Your task to perform on an android device: Go to Reddit.com Image 0: 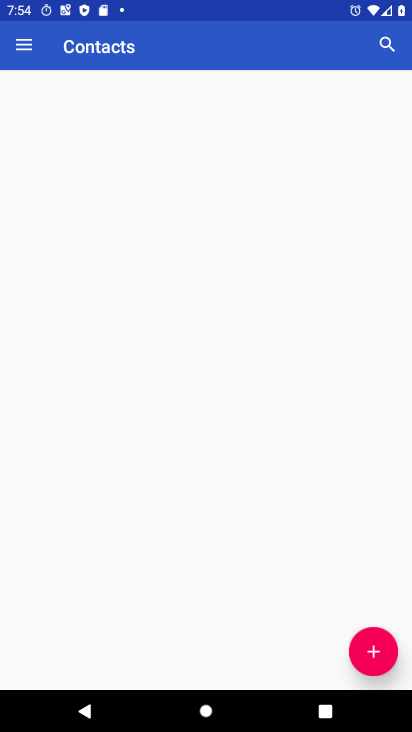
Step 0: drag from (229, 640) to (281, 214)
Your task to perform on an android device: Go to Reddit.com Image 1: 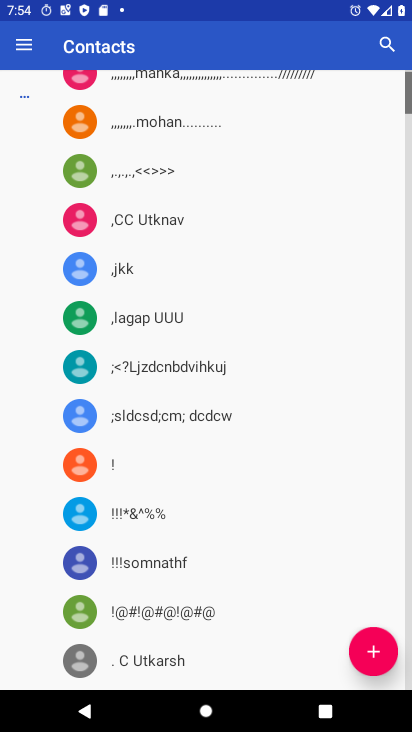
Step 1: press home button
Your task to perform on an android device: Go to Reddit.com Image 2: 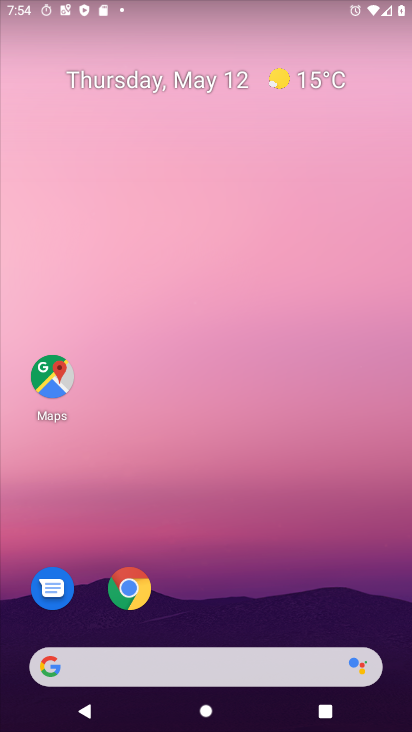
Step 2: click (135, 585)
Your task to perform on an android device: Go to Reddit.com Image 3: 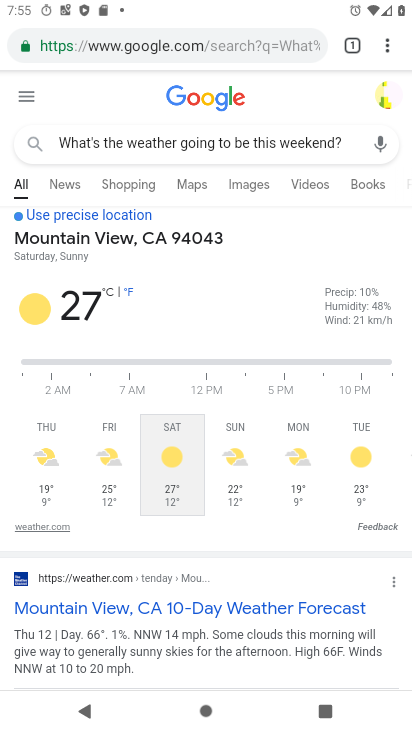
Step 3: click (196, 41)
Your task to perform on an android device: Go to Reddit.com Image 4: 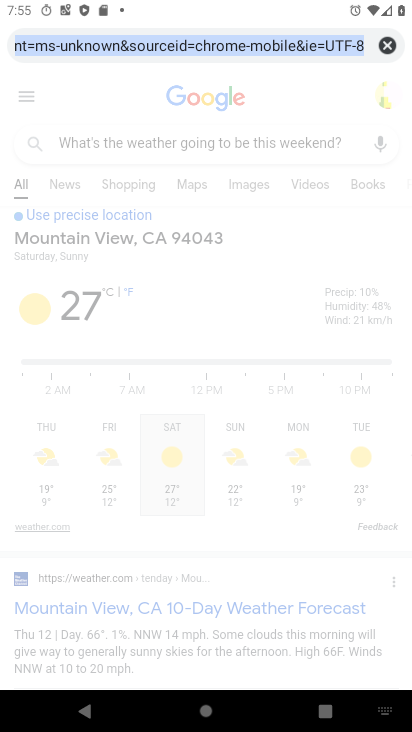
Step 4: type "Reddit.com"
Your task to perform on an android device: Go to Reddit.com Image 5: 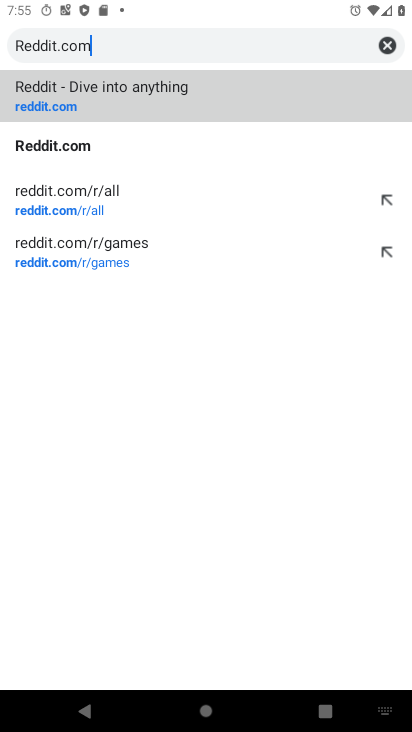
Step 5: click (99, 141)
Your task to perform on an android device: Go to Reddit.com Image 6: 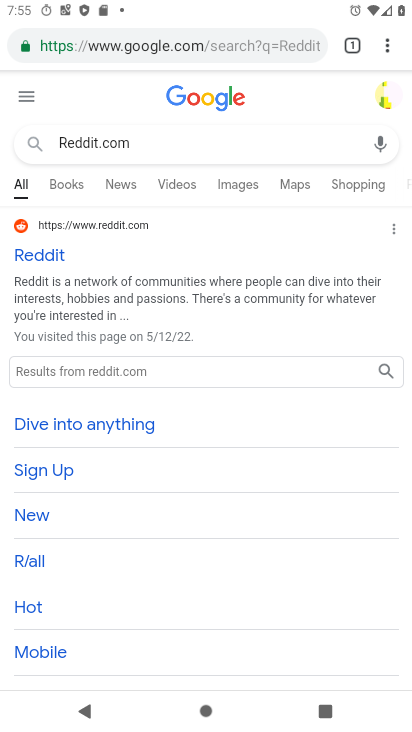
Step 6: task complete